Your task to perform on an android device: Search for sushi restaurants on Maps Image 0: 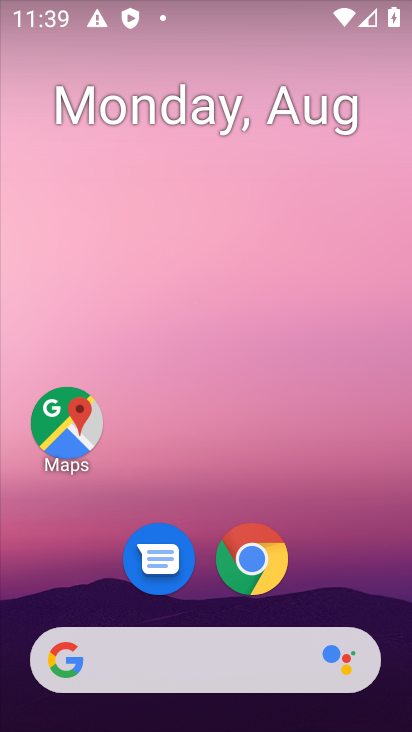
Step 0: drag from (199, 595) to (287, 22)
Your task to perform on an android device: Search for sushi restaurants on Maps Image 1: 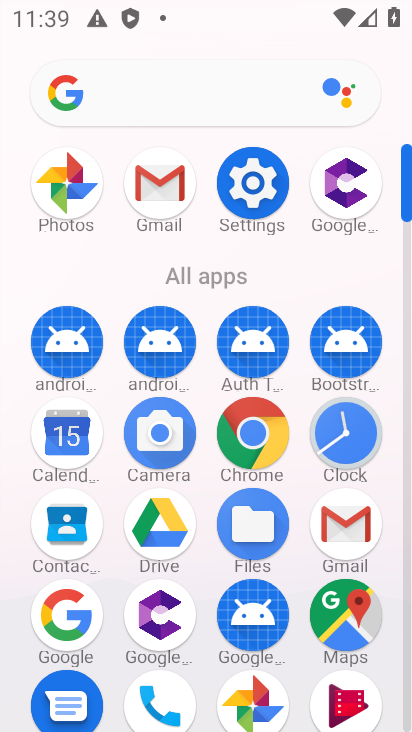
Step 1: click (335, 614)
Your task to perform on an android device: Search for sushi restaurants on Maps Image 2: 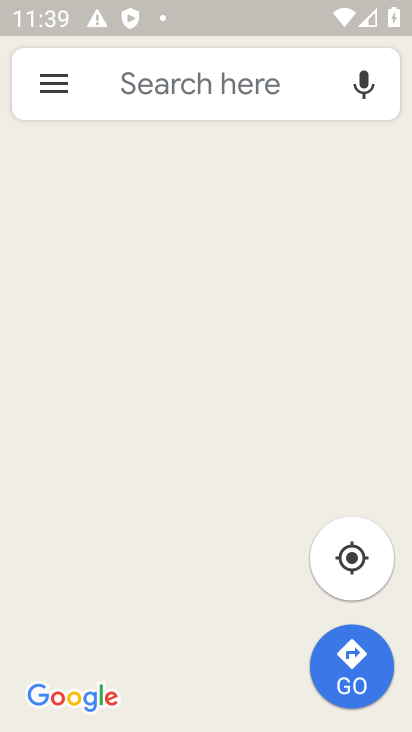
Step 2: click (217, 101)
Your task to perform on an android device: Search for sushi restaurants on Maps Image 3: 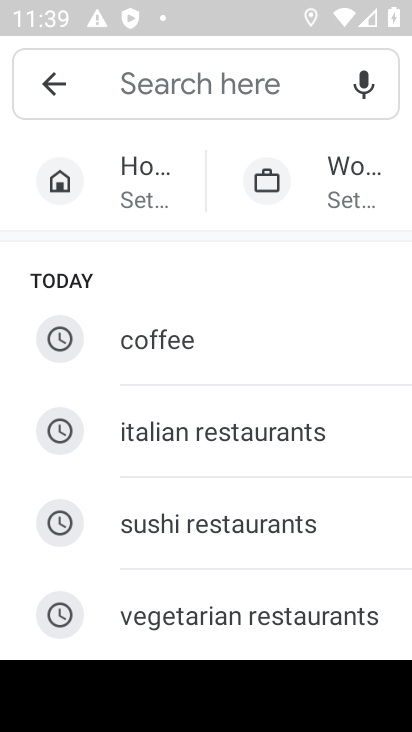
Step 3: type "sushi restaurants"
Your task to perform on an android device: Search for sushi restaurants on Maps Image 4: 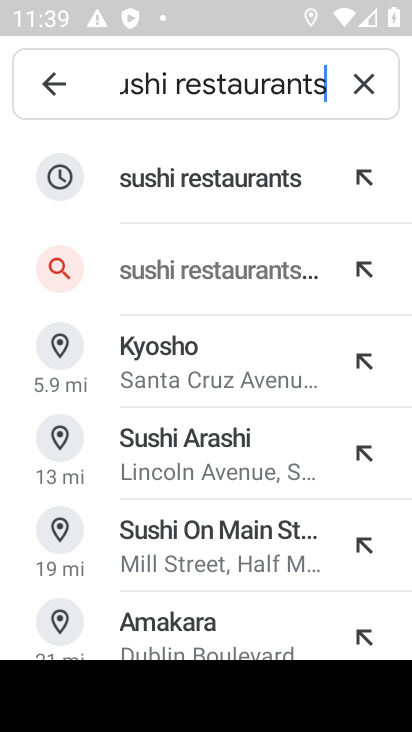
Step 4: click (156, 172)
Your task to perform on an android device: Search for sushi restaurants on Maps Image 5: 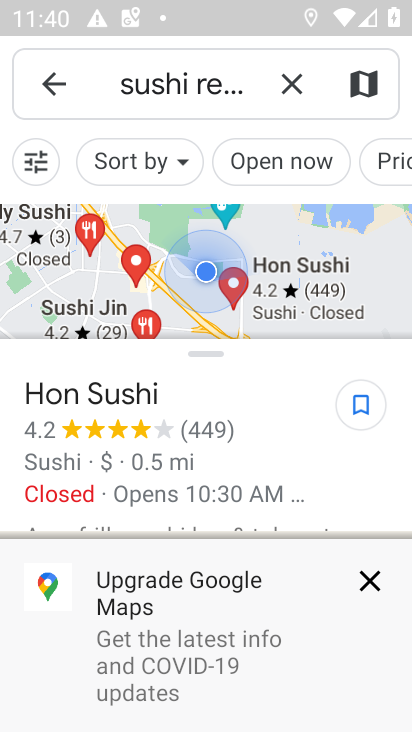
Step 5: task complete